Your task to perform on an android device: see sites visited before in the chrome app Image 0: 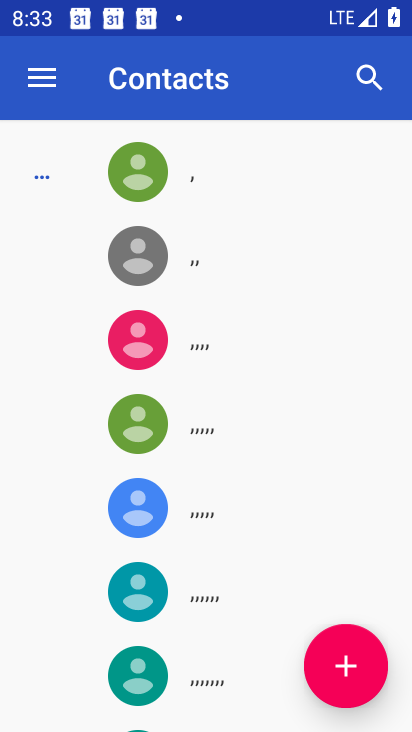
Step 0: press home button
Your task to perform on an android device: see sites visited before in the chrome app Image 1: 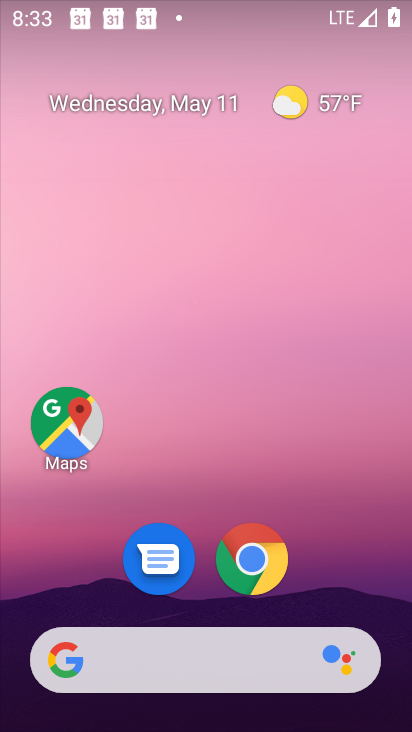
Step 1: drag from (338, 602) to (307, 76)
Your task to perform on an android device: see sites visited before in the chrome app Image 2: 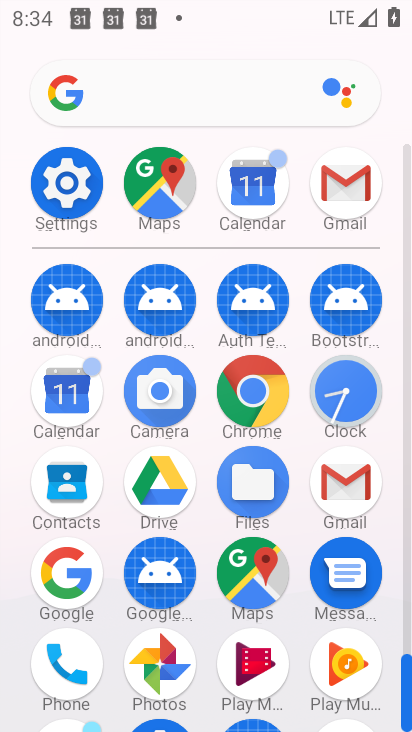
Step 2: click (265, 404)
Your task to perform on an android device: see sites visited before in the chrome app Image 3: 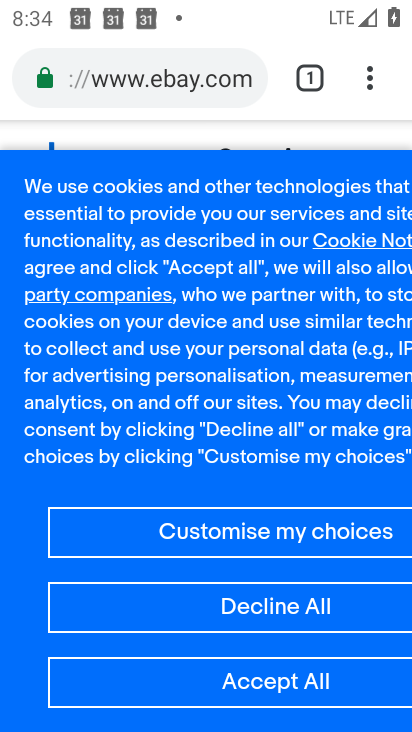
Step 3: task complete